Your task to perform on an android device: Open Google Chrome and click the shortcut for Amazon.com Image 0: 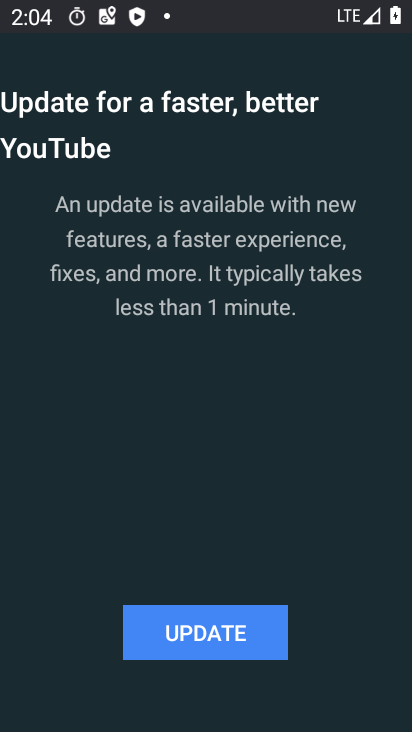
Step 0: press home button
Your task to perform on an android device: Open Google Chrome and click the shortcut for Amazon.com Image 1: 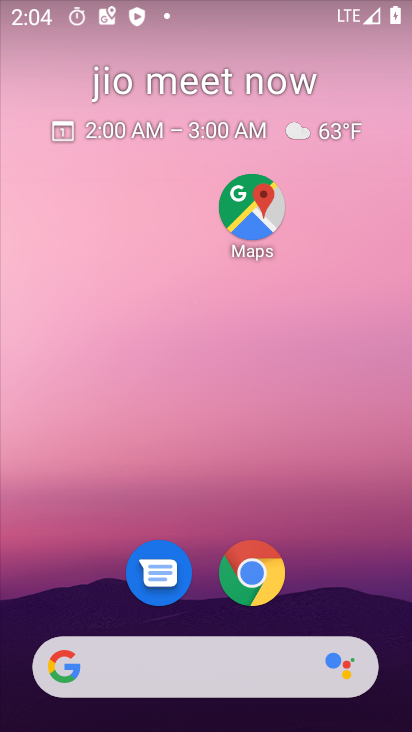
Step 1: press home button
Your task to perform on an android device: Open Google Chrome and click the shortcut for Amazon.com Image 2: 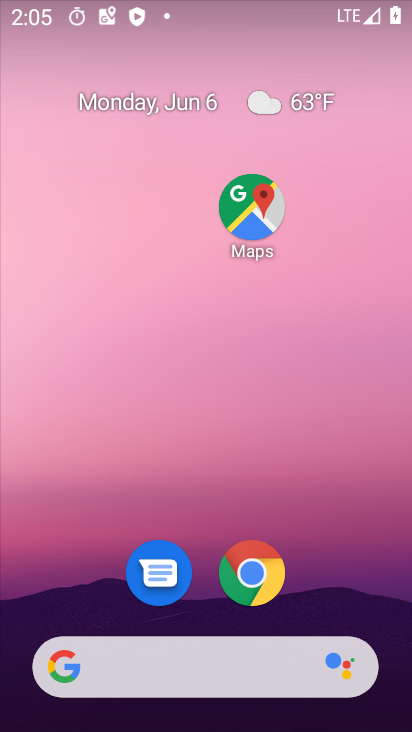
Step 2: click (244, 573)
Your task to perform on an android device: Open Google Chrome and click the shortcut for Amazon.com Image 3: 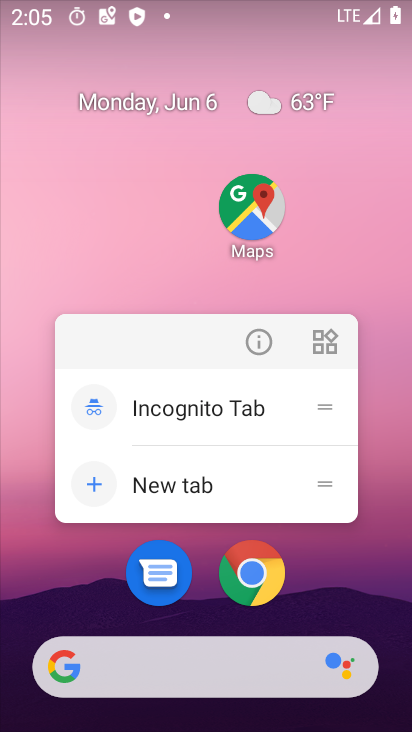
Step 3: click (248, 578)
Your task to perform on an android device: Open Google Chrome and click the shortcut for Amazon.com Image 4: 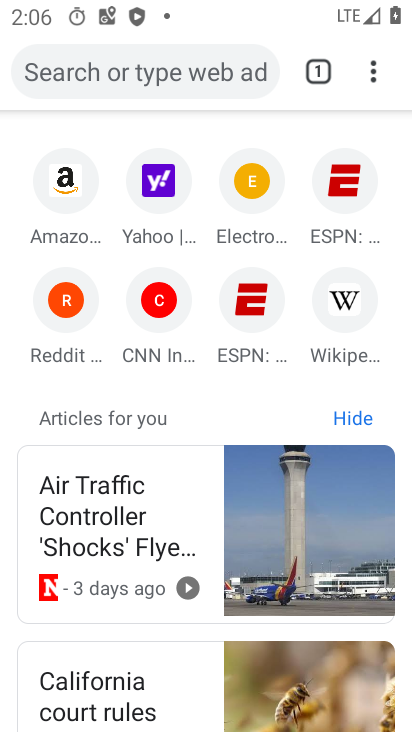
Step 4: click (53, 188)
Your task to perform on an android device: Open Google Chrome and click the shortcut for Amazon.com Image 5: 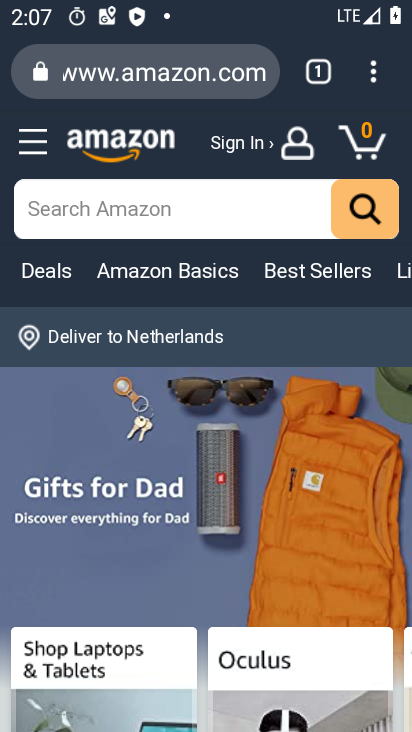
Step 5: task complete